Your task to perform on an android device: See recent photos Image 0: 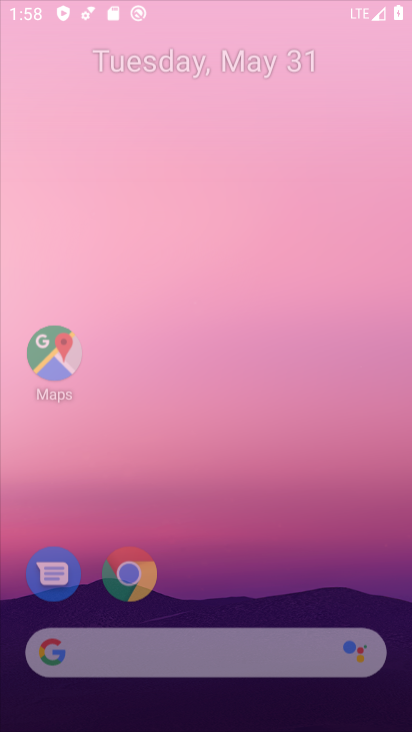
Step 0: press home button
Your task to perform on an android device: See recent photos Image 1: 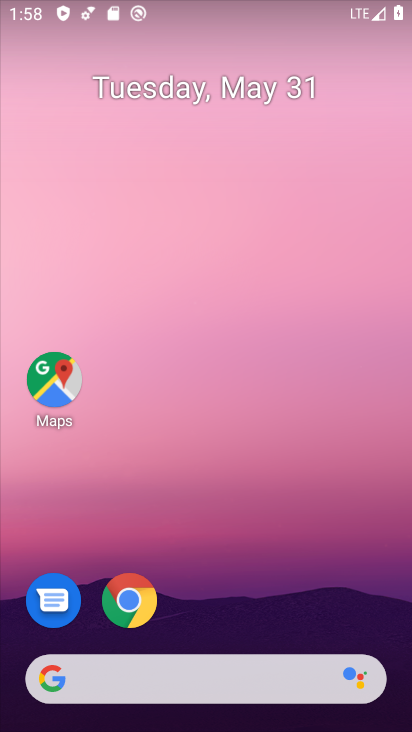
Step 1: drag from (199, 551) to (222, 75)
Your task to perform on an android device: See recent photos Image 2: 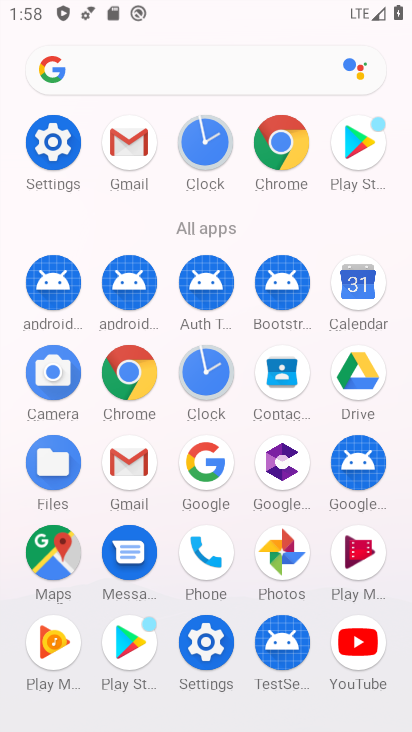
Step 2: click (282, 550)
Your task to perform on an android device: See recent photos Image 3: 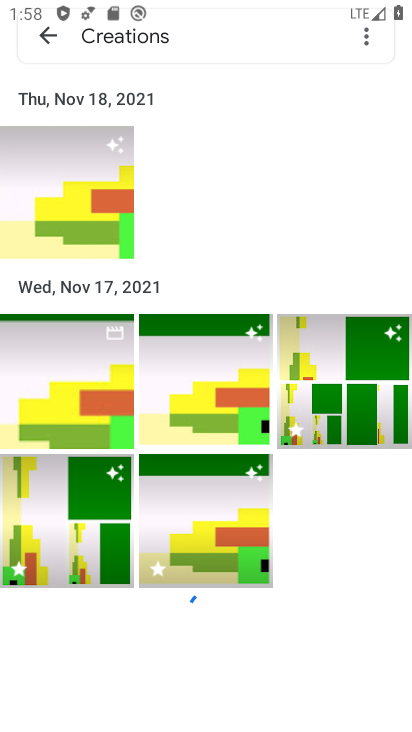
Step 3: click (49, 26)
Your task to perform on an android device: See recent photos Image 4: 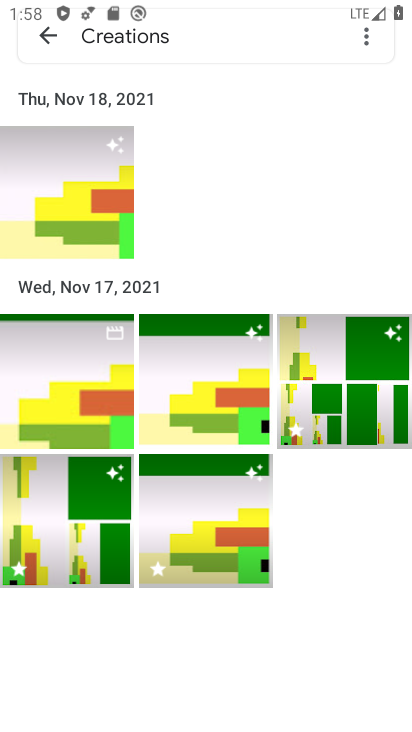
Step 4: click (51, 37)
Your task to perform on an android device: See recent photos Image 5: 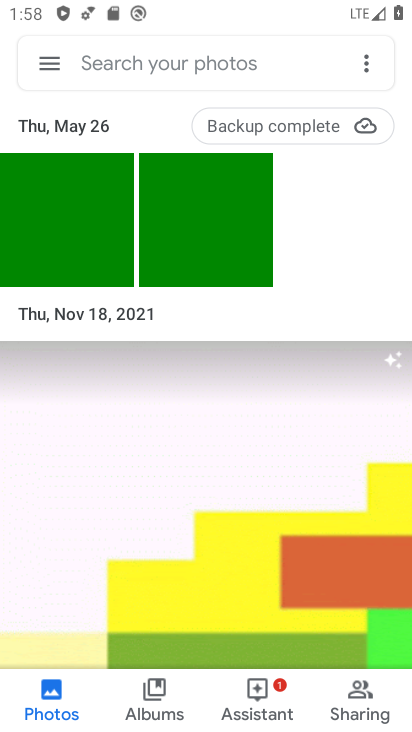
Step 5: task complete